Your task to perform on an android device: Check the news Image 0: 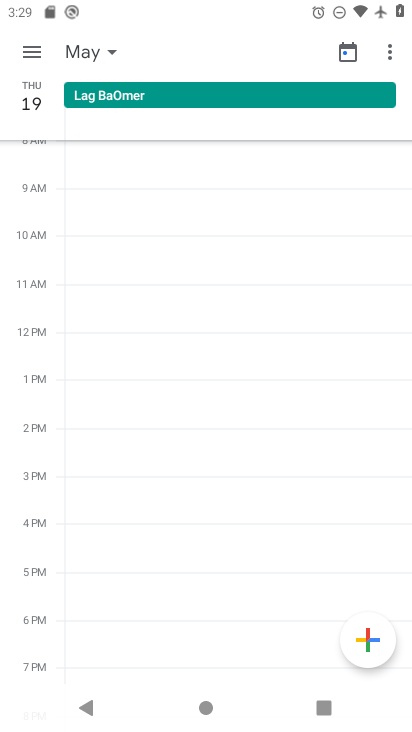
Step 0: press home button
Your task to perform on an android device: Check the news Image 1: 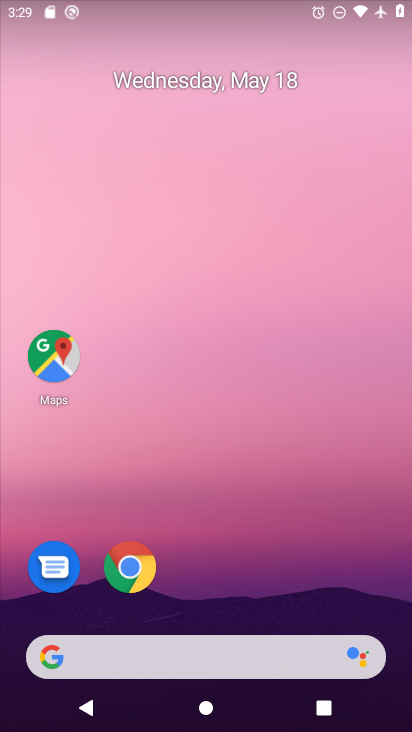
Step 1: drag from (200, 513) to (224, 255)
Your task to perform on an android device: Check the news Image 2: 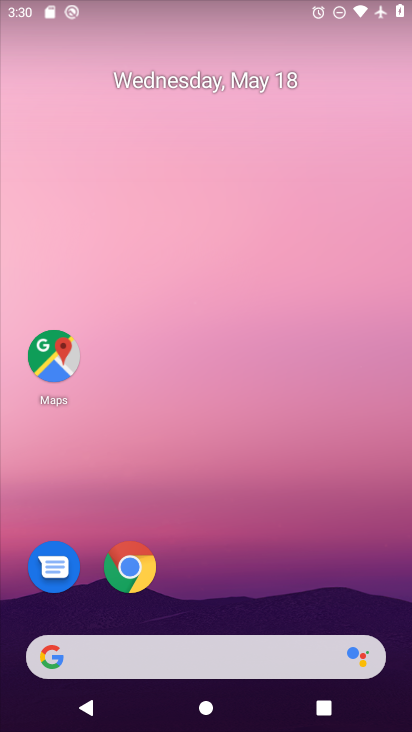
Step 2: drag from (276, 589) to (232, 262)
Your task to perform on an android device: Check the news Image 3: 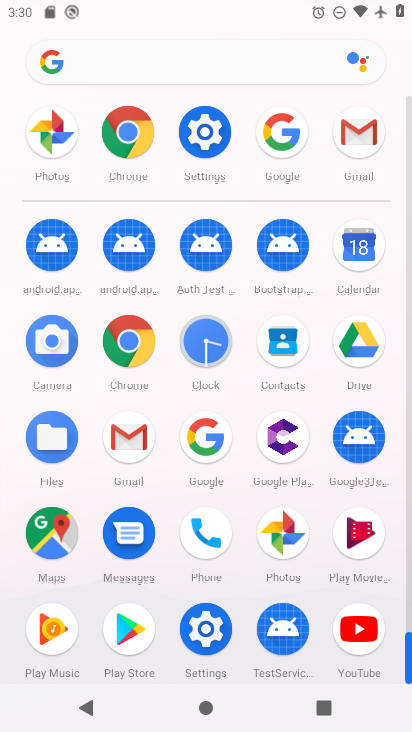
Step 3: click (130, 134)
Your task to perform on an android device: Check the news Image 4: 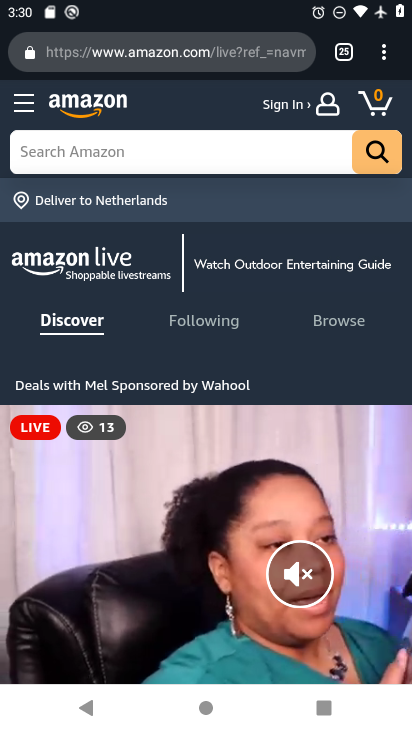
Step 4: click (366, 52)
Your task to perform on an android device: Check the news Image 5: 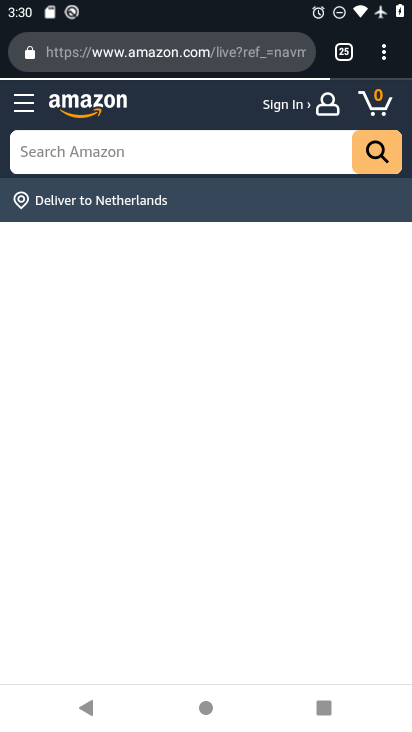
Step 5: click (379, 50)
Your task to perform on an android device: Check the news Image 6: 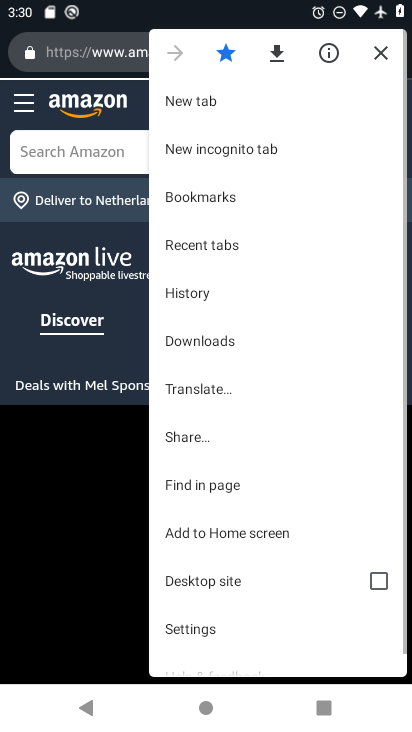
Step 6: click (206, 90)
Your task to perform on an android device: Check the news Image 7: 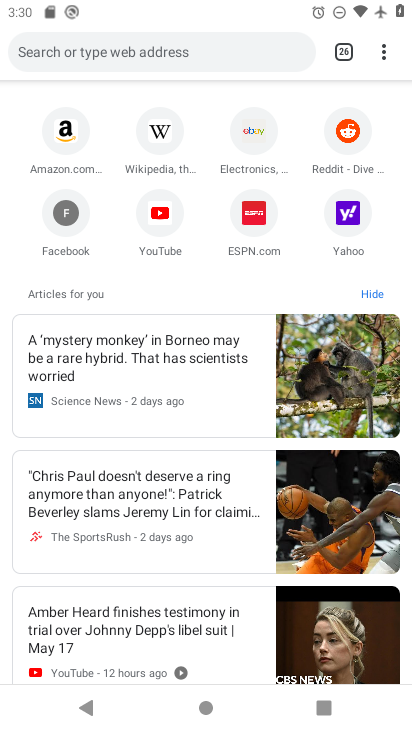
Step 7: click (197, 42)
Your task to perform on an android device: Check the news Image 8: 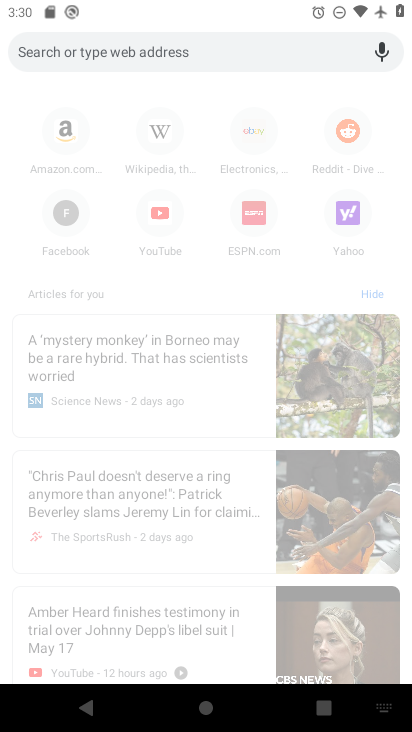
Step 8: type " the news"
Your task to perform on an android device: Check the news Image 9: 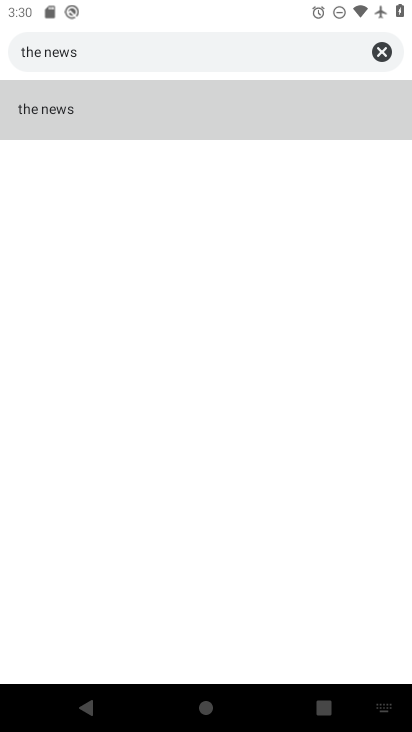
Step 9: click (152, 105)
Your task to perform on an android device: Check the news Image 10: 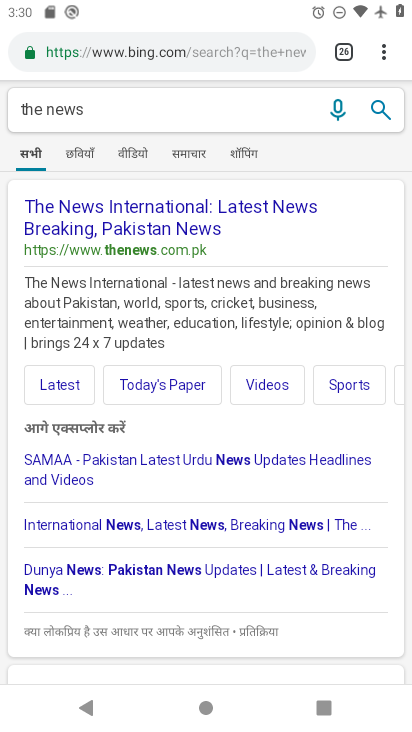
Step 10: task complete